Your task to perform on an android device: What's on my calendar today? Image 0: 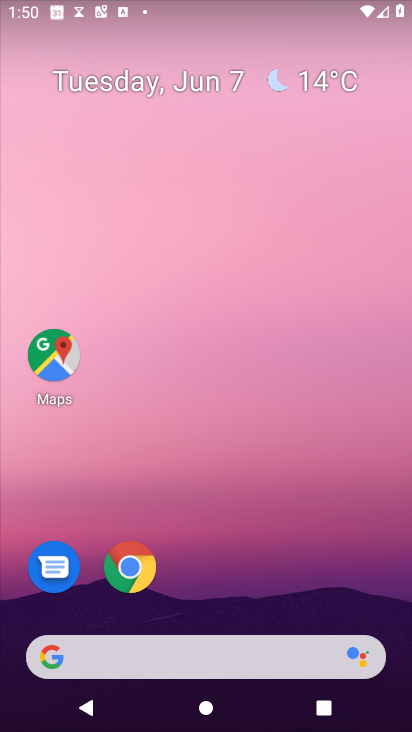
Step 0: drag from (137, 660) to (202, 4)
Your task to perform on an android device: What's on my calendar today? Image 1: 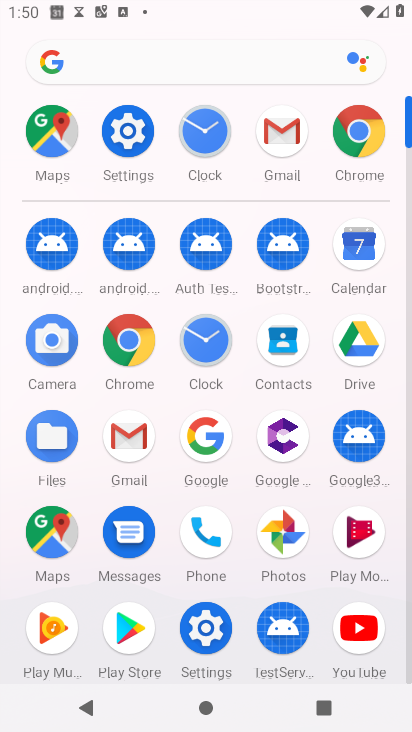
Step 1: click (358, 250)
Your task to perform on an android device: What's on my calendar today? Image 2: 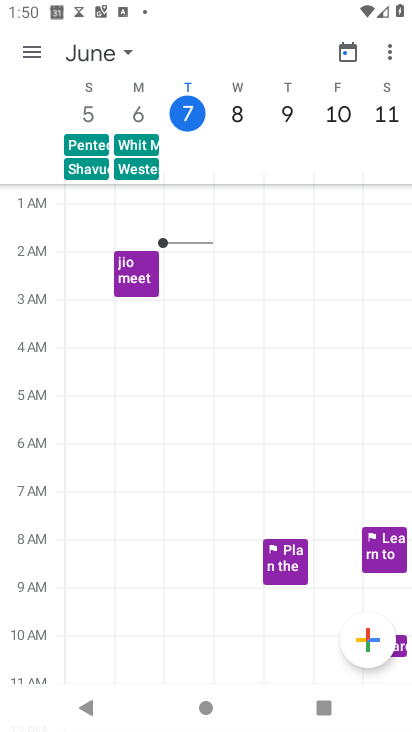
Step 2: click (198, 109)
Your task to perform on an android device: What's on my calendar today? Image 3: 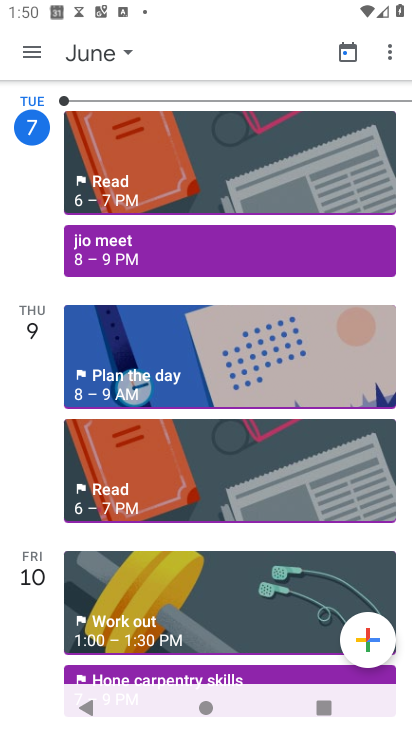
Step 3: task complete